Your task to perform on an android device: Search for hotels in Atlanta Image 0: 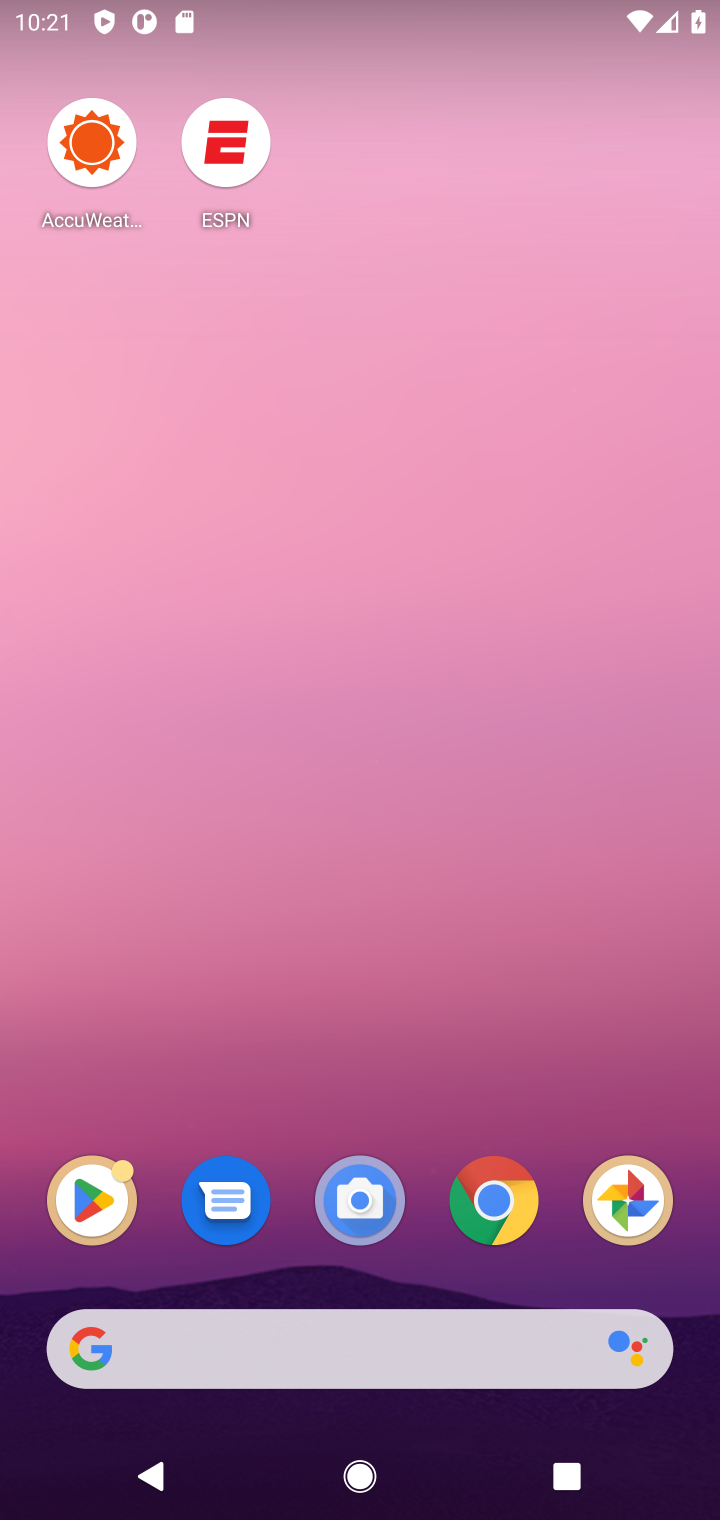
Step 0: drag from (458, 1339) to (502, 575)
Your task to perform on an android device: Search for hotels in Atlanta Image 1: 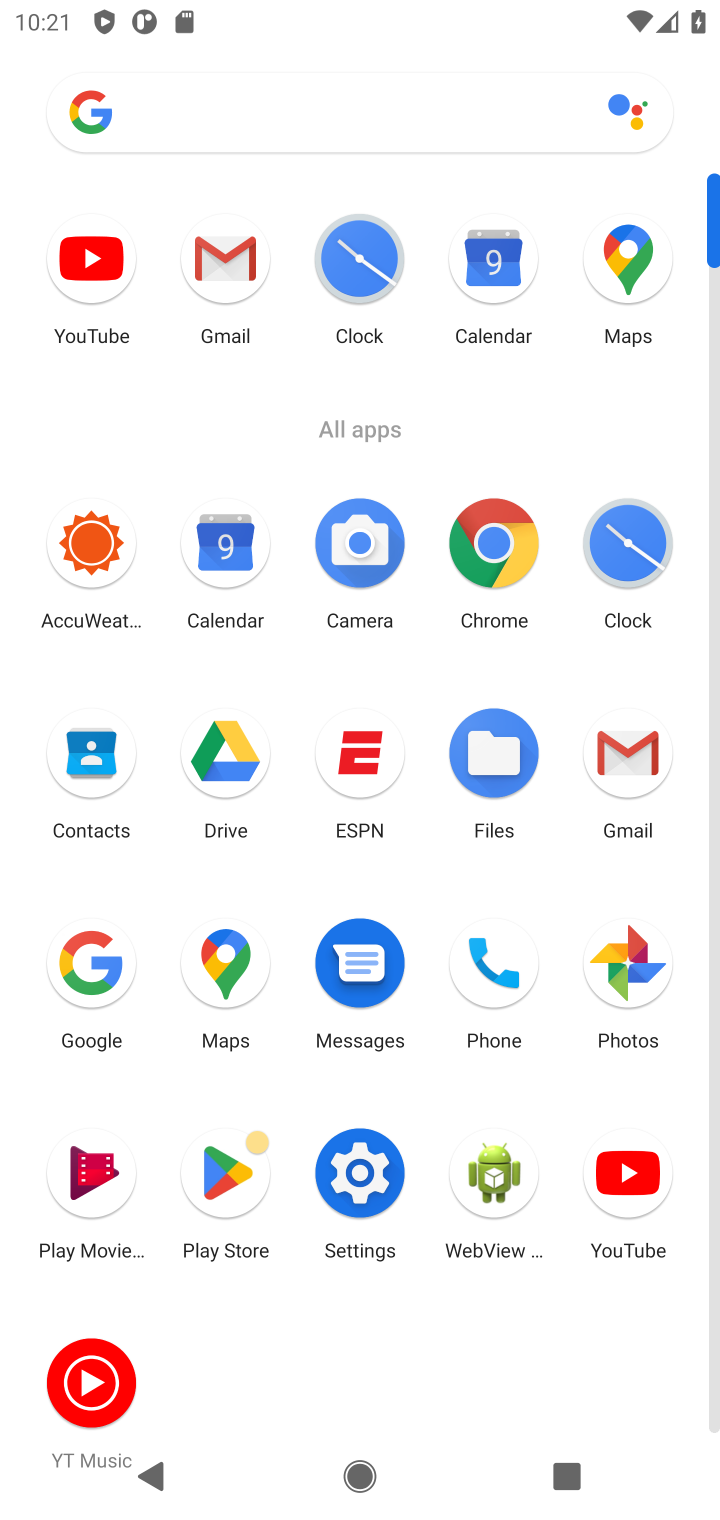
Step 1: click (492, 545)
Your task to perform on an android device: Search for hotels in Atlanta Image 2: 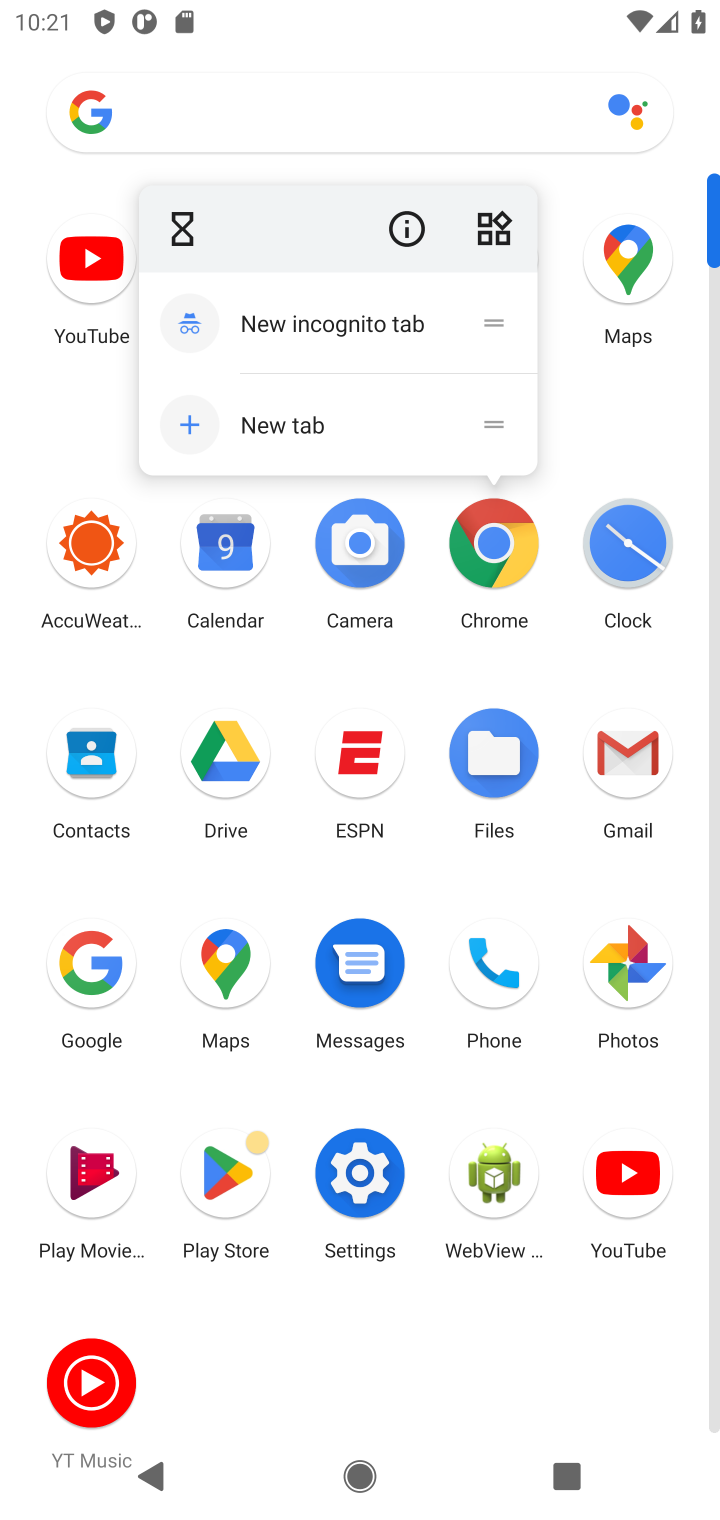
Step 2: click (495, 521)
Your task to perform on an android device: Search for hotels in Atlanta Image 3: 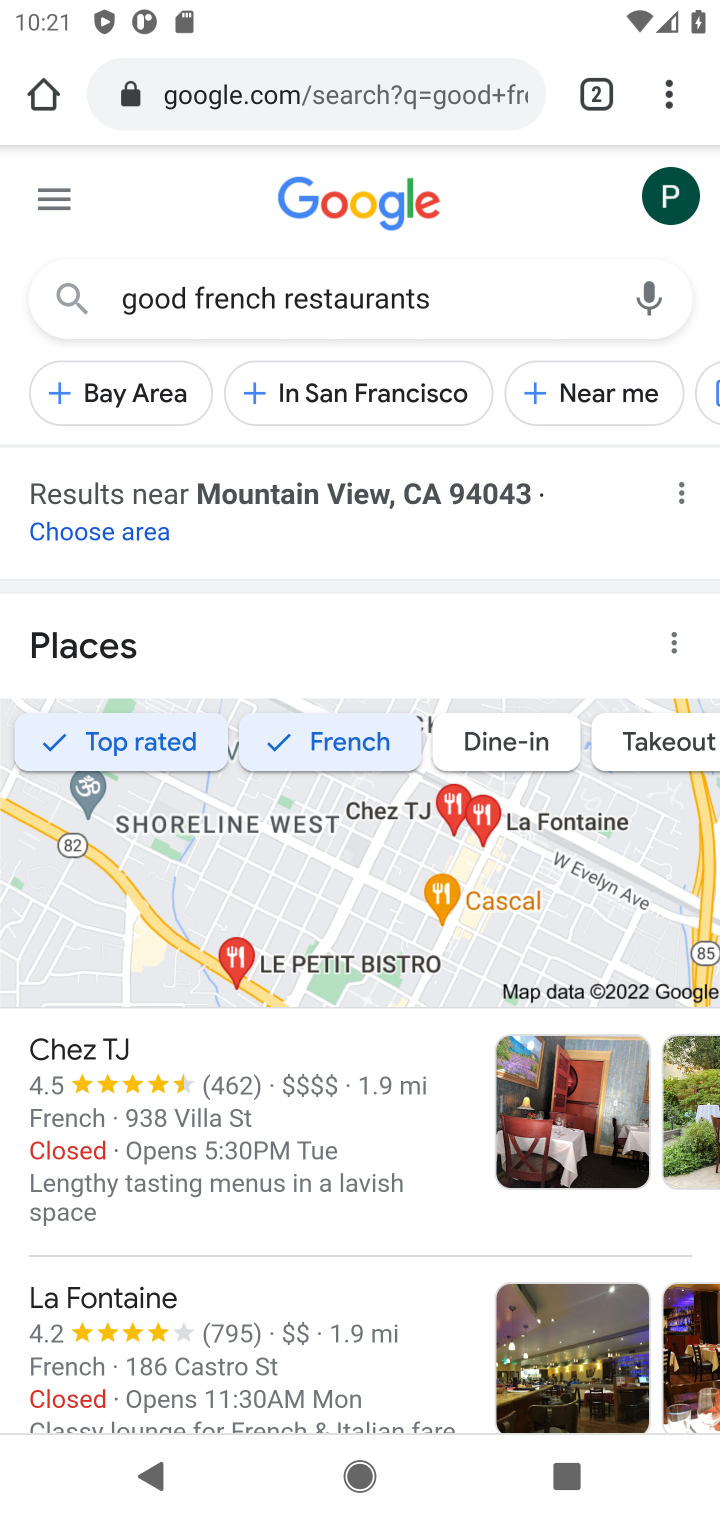
Step 3: click (431, 292)
Your task to perform on an android device: Search for hotels in Atlanta Image 4: 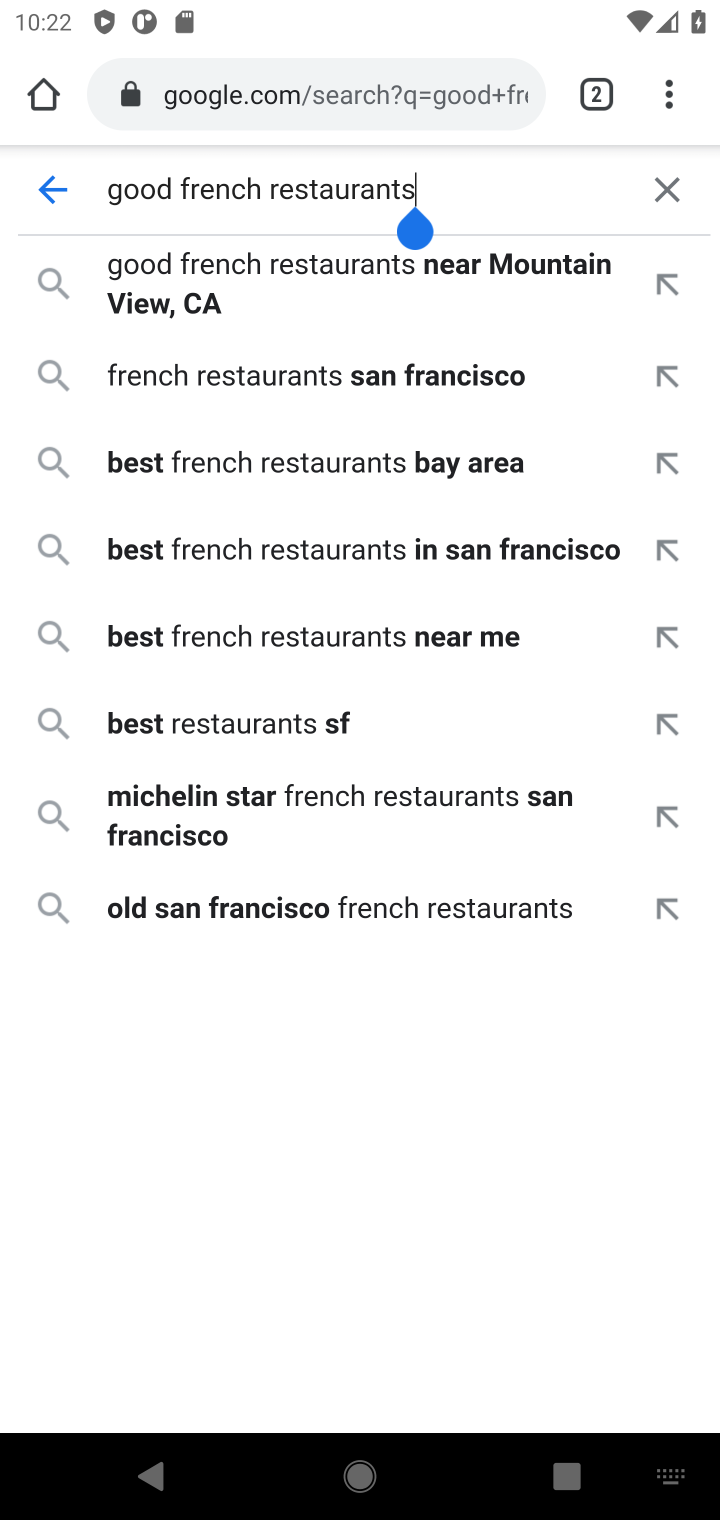
Step 4: click (662, 194)
Your task to perform on an android device: Search for hotels in Atlanta Image 5: 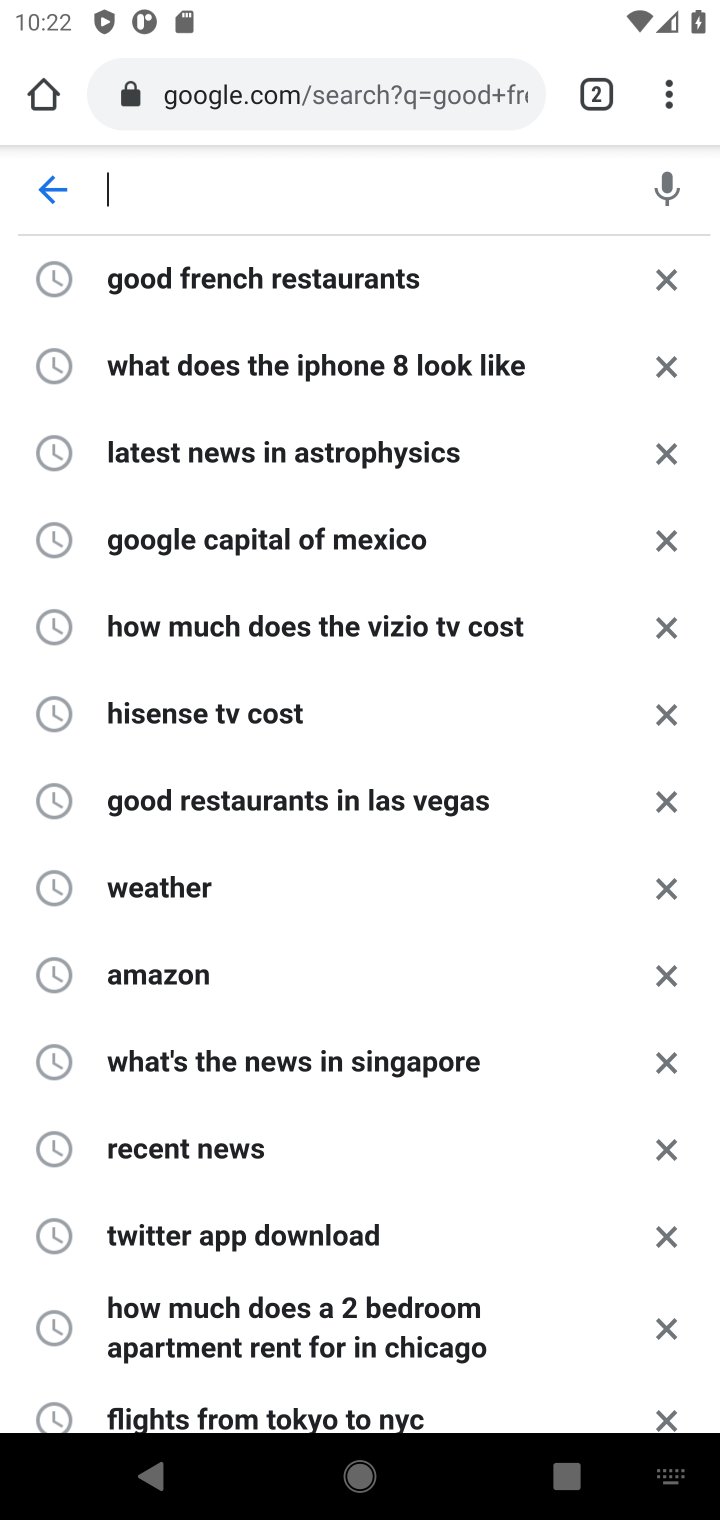
Step 5: type "hotels in Atlanta"
Your task to perform on an android device: Search for hotels in Atlanta Image 6: 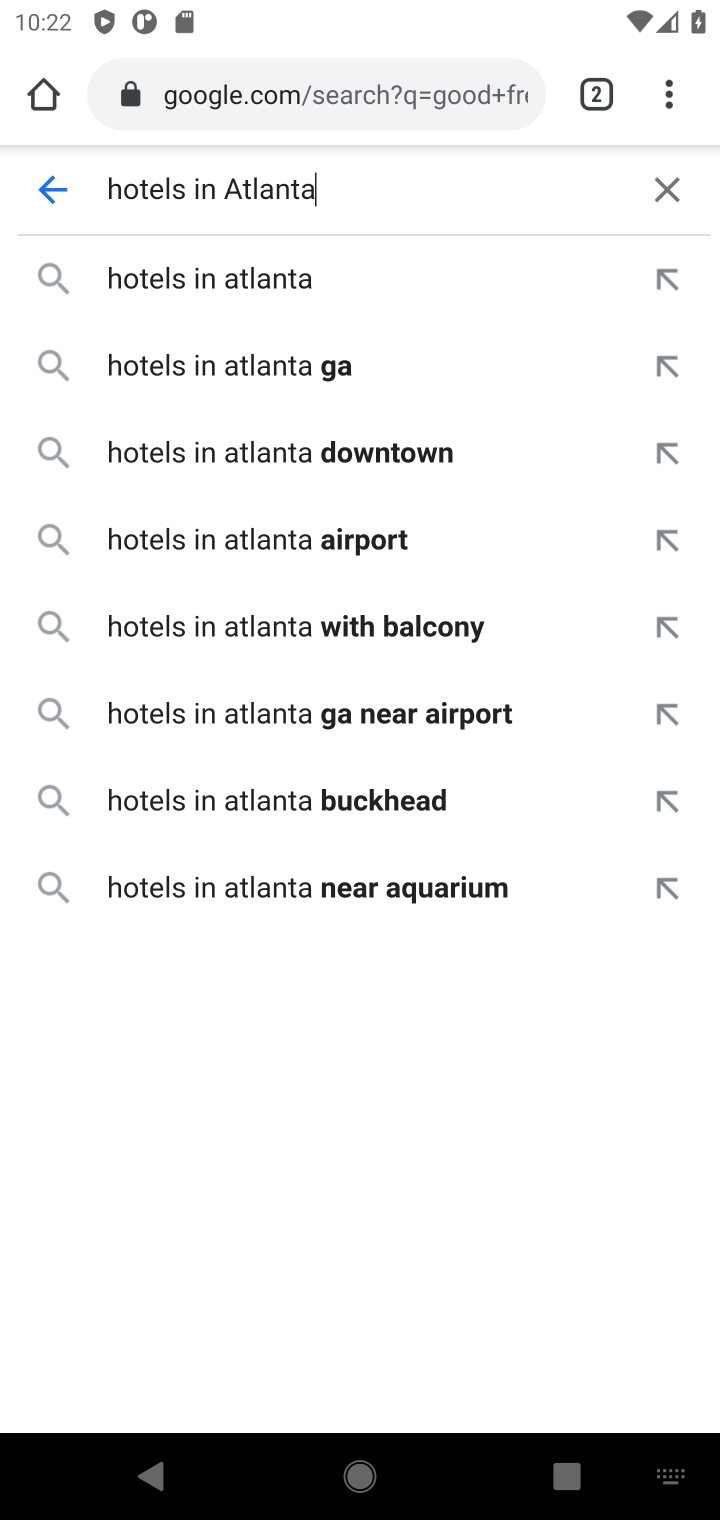
Step 6: click (292, 292)
Your task to perform on an android device: Search for hotels in Atlanta Image 7: 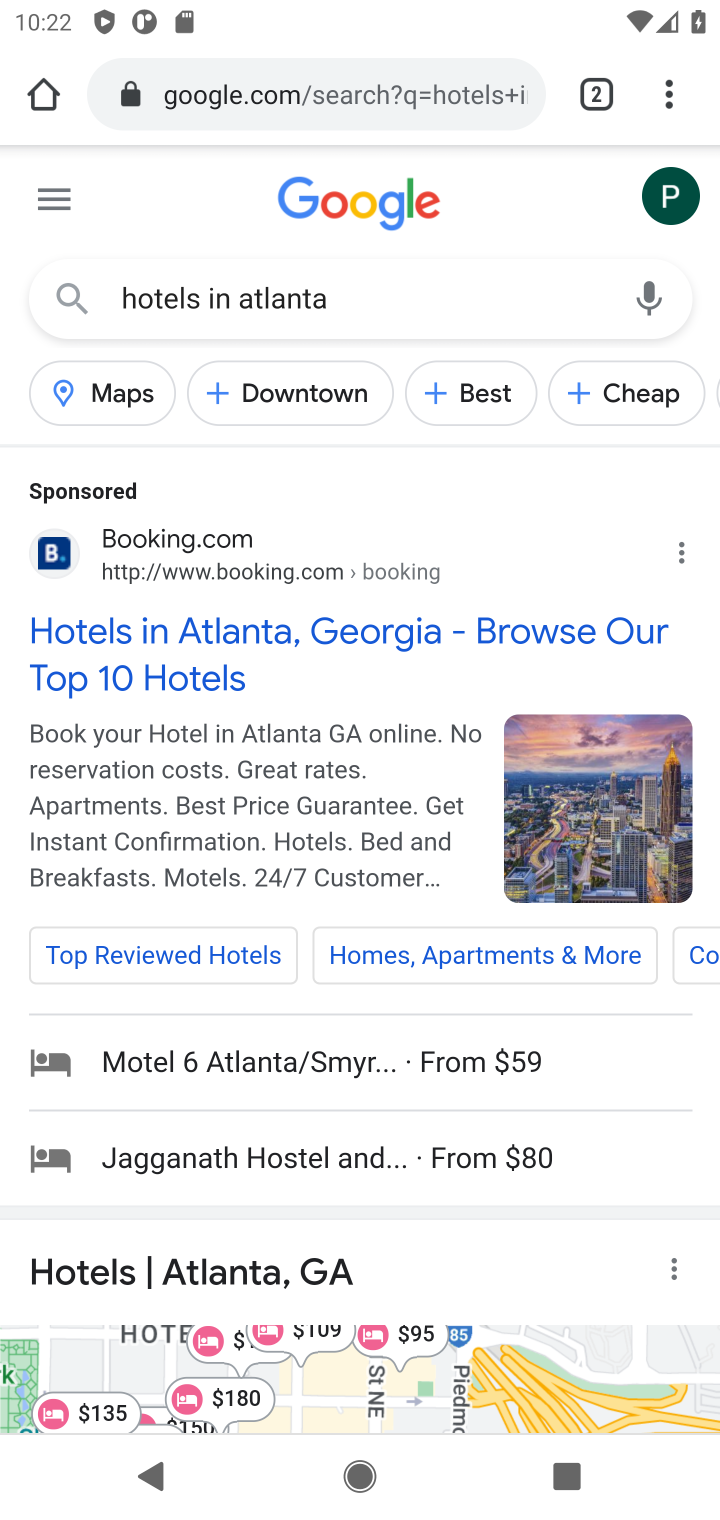
Step 7: task complete